Your task to perform on an android device: Open calendar and show me the third week of next month Image 0: 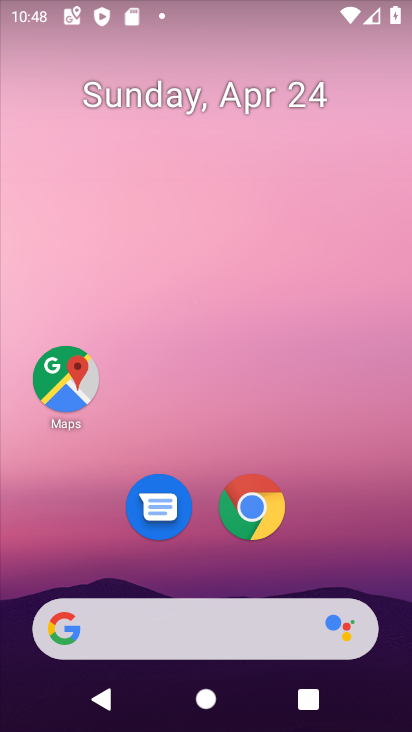
Step 0: drag from (356, 556) to (328, 125)
Your task to perform on an android device: Open calendar and show me the third week of next month Image 1: 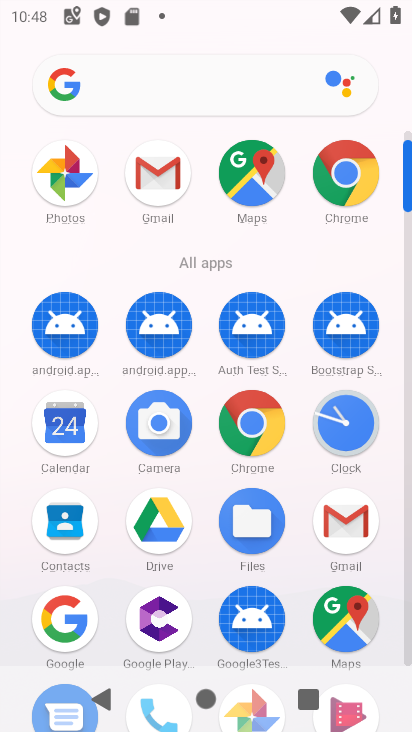
Step 1: click (63, 429)
Your task to perform on an android device: Open calendar and show me the third week of next month Image 2: 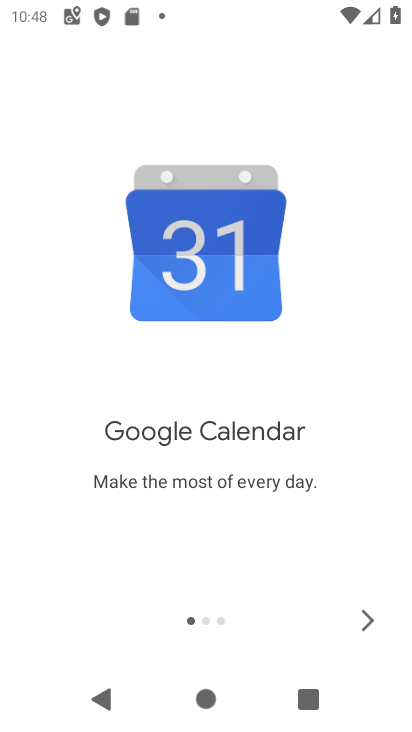
Step 2: drag from (63, 428) to (83, 386)
Your task to perform on an android device: Open calendar and show me the third week of next month Image 3: 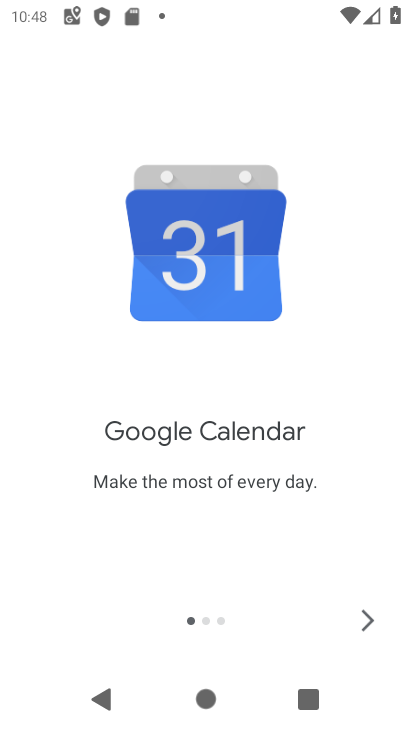
Step 3: click (365, 618)
Your task to perform on an android device: Open calendar and show me the third week of next month Image 4: 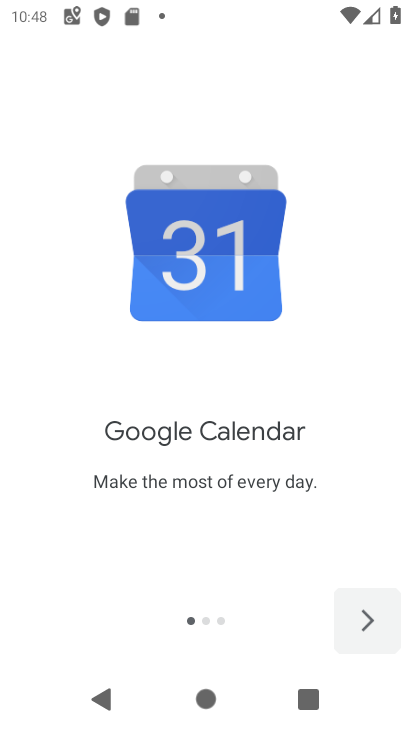
Step 4: click (365, 618)
Your task to perform on an android device: Open calendar and show me the third week of next month Image 5: 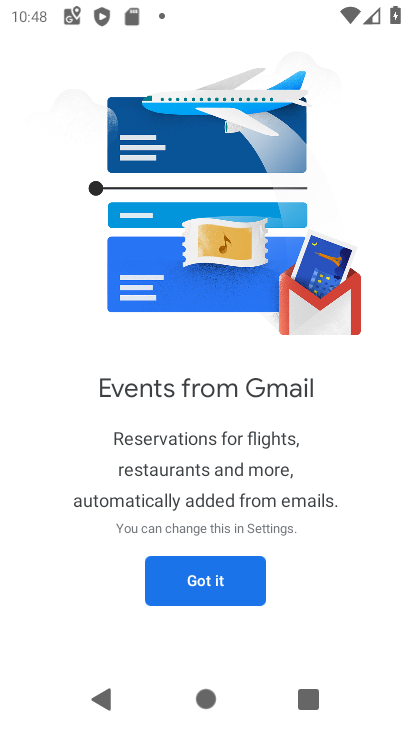
Step 5: click (257, 569)
Your task to perform on an android device: Open calendar and show me the third week of next month Image 6: 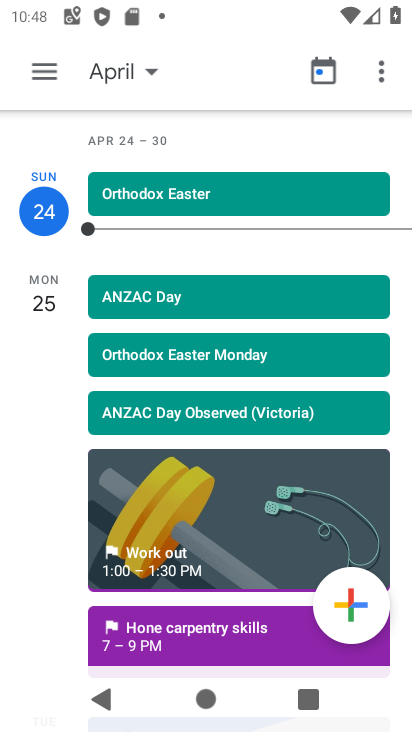
Step 6: click (141, 74)
Your task to perform on an android device: Open calendar and show me the third week of next month Image 7: 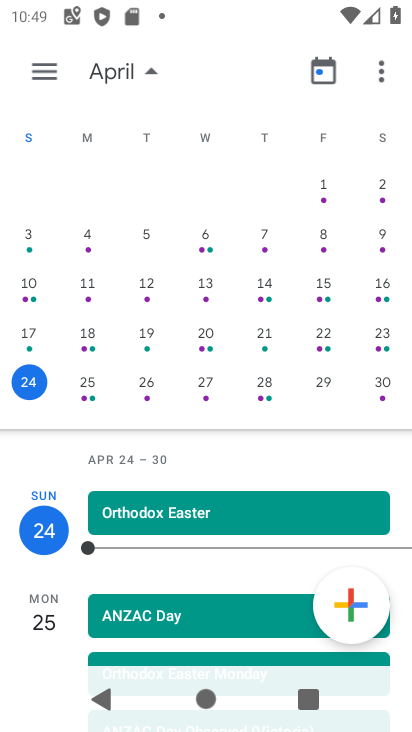
Step 7: drag from (364, 343) to (0, 292)
Your task to perform on an android device: Open calendar and show me the third week of next month Image 8: 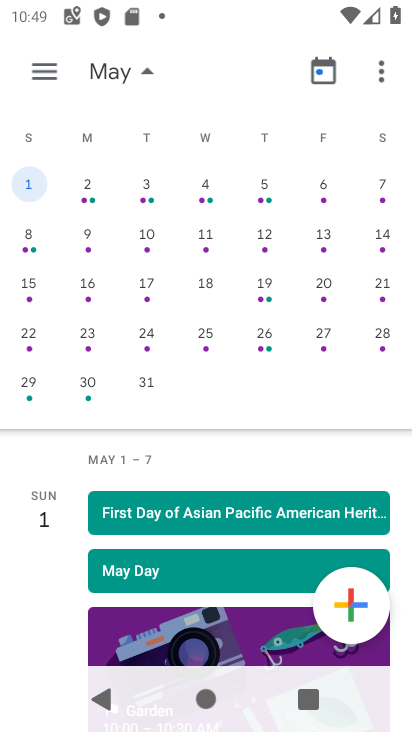
Step 8: click (85, 290)
Your task to perform on an android device: Open calendar and show me the third week of next month Image 9: 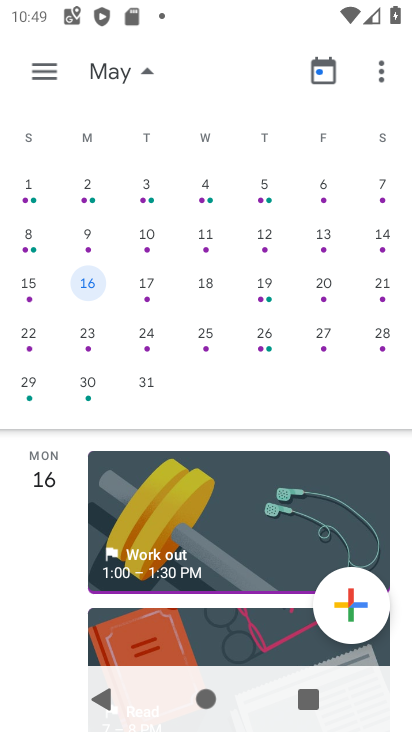
Step 9: click (32, 73)
Your task to perform on an android device: Open calendar and show me the third week of next month Image 10: 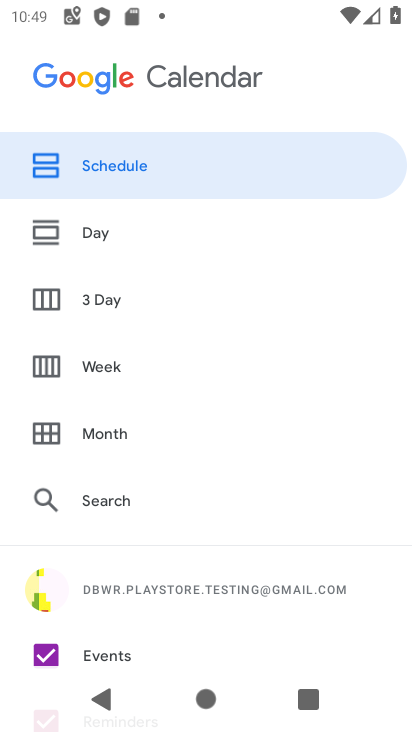
Step 10: click (146, 374)
Your task to perform on an android device: Open calendar and show me the third week of next month Image 11: 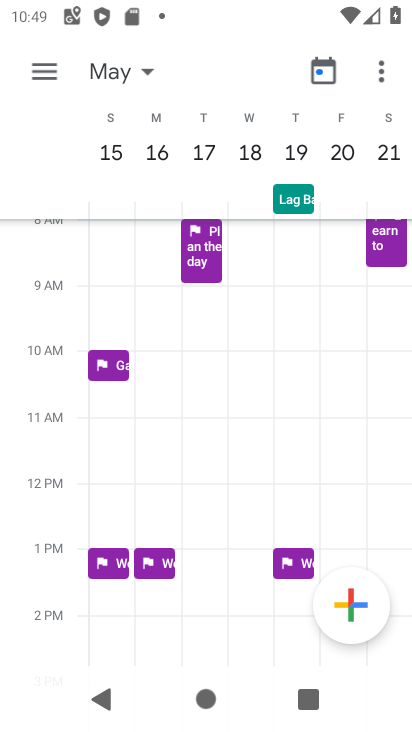
Step 11: task complete